Your task to perform on an android device: set an alarm Image 0: 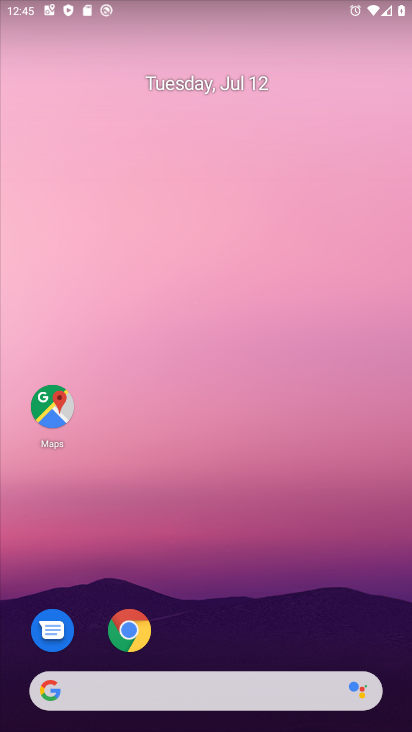
Step 0: drag from (234, 689) to (287, 11)
Your task to perform on an android device: set an alarm Image 1: 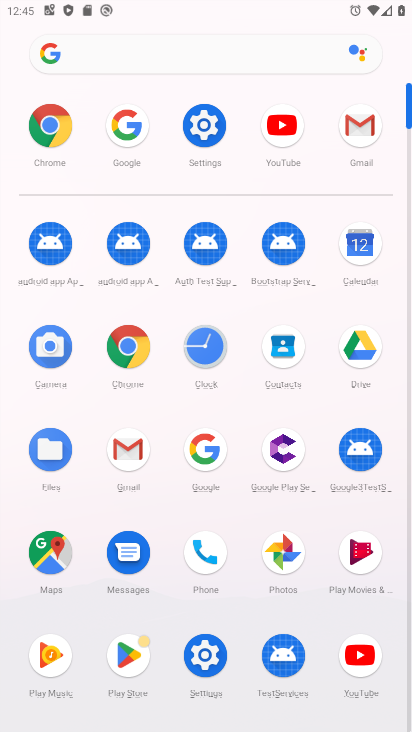
Step 1: click (205, 347)
Your task to perform on an android device: set an alarm Image 2: 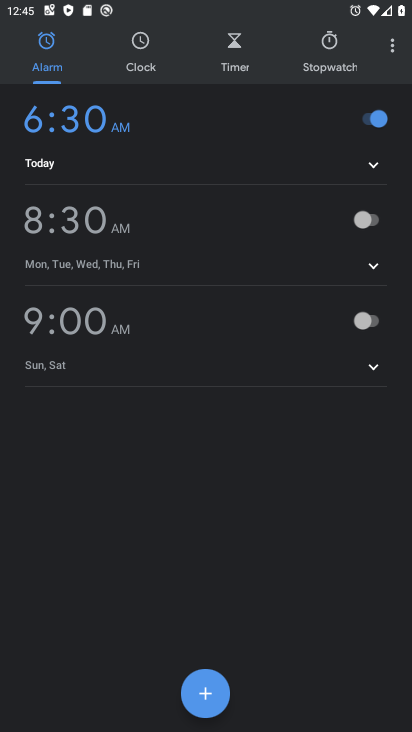
Step 2: click (209, 696)
Your task to perform on an android device: set an alarm Image 3: 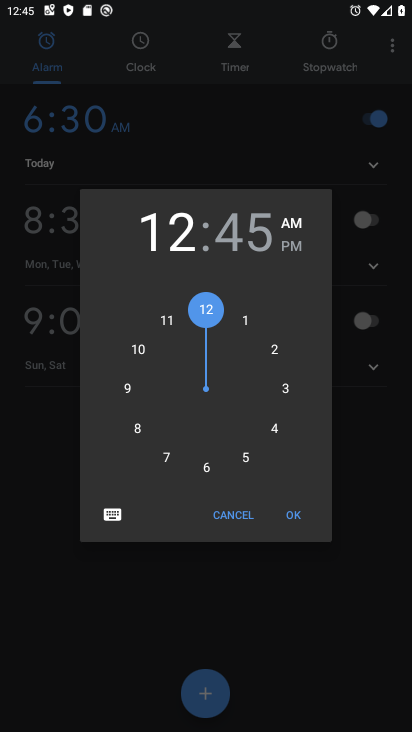
Step 3: click (204, 463)
Your task to perform on an android device: set an alarm Image 4: 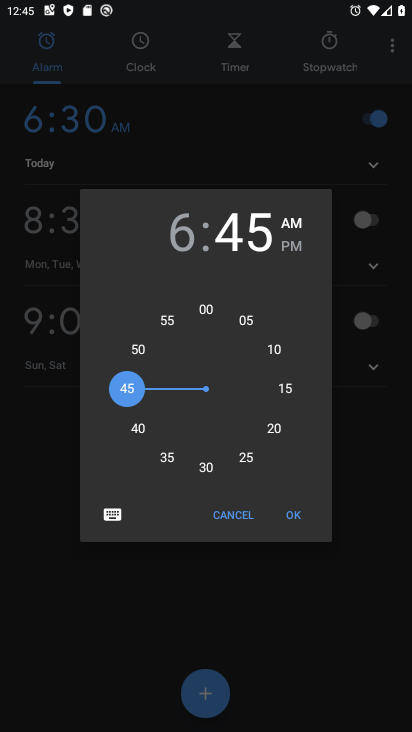
Step 4: click (204, 463)
Your task to perform on an android device: set an alarm Image 5: 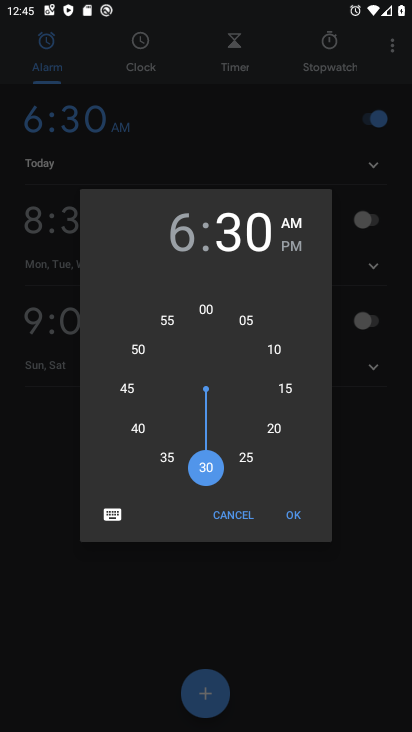
Step 5: click (279, 242)
Your task to perform on an android device: set an alarm Image 6: 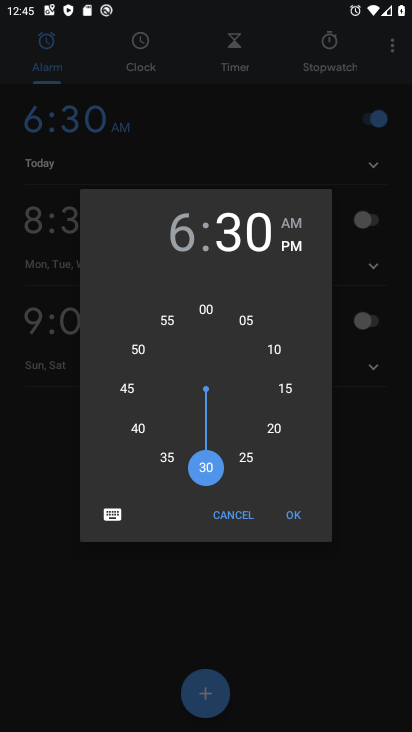
Step 6: click (293, 513)
Your task to perform on an android device: set an alarm Image 7: 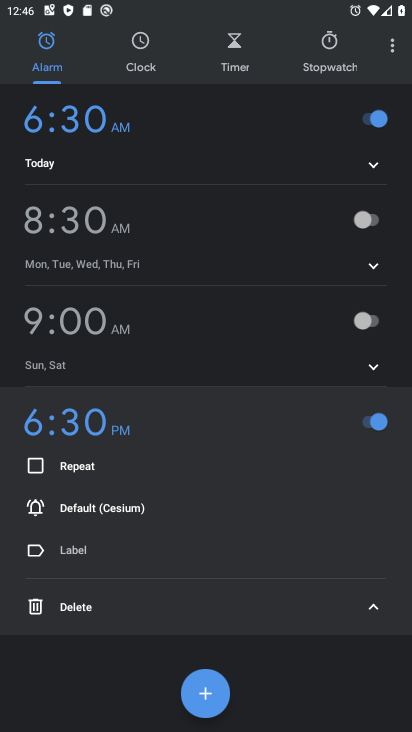
Step 7: click (373, 597)
Your task to perform on an android device: set an alarm Image 8: 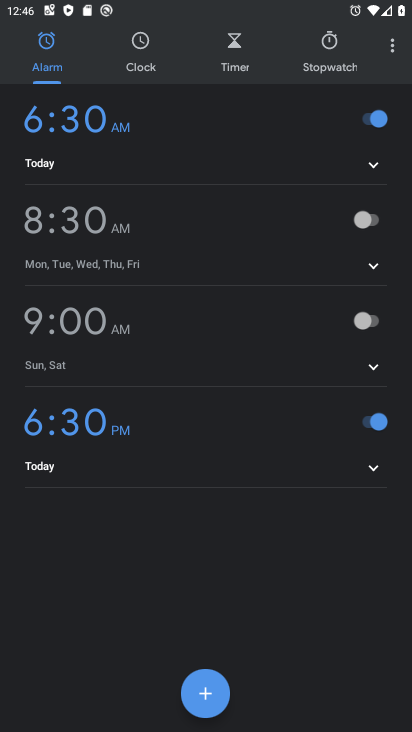
Step 8: task complete